Your task to perform on an android device: Open Android settings Image 0: 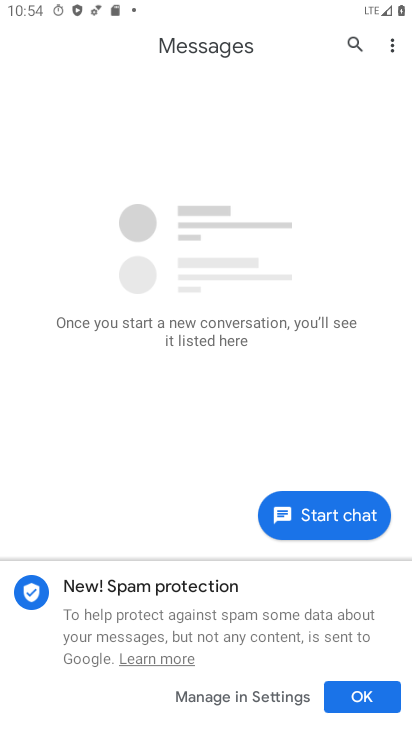
Step 0: press back button
Your task to perform on an android device: Open Android settings Image 1: 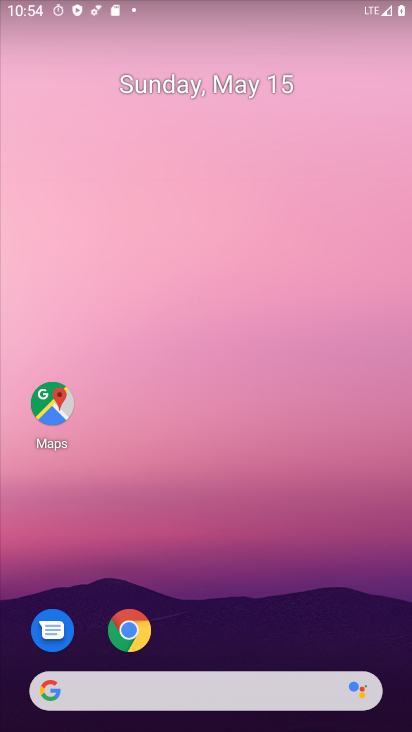
Step 1: drag from (237, 616) to (283, 120)
Your task to perform on an android device: Open Android settings Image 2: 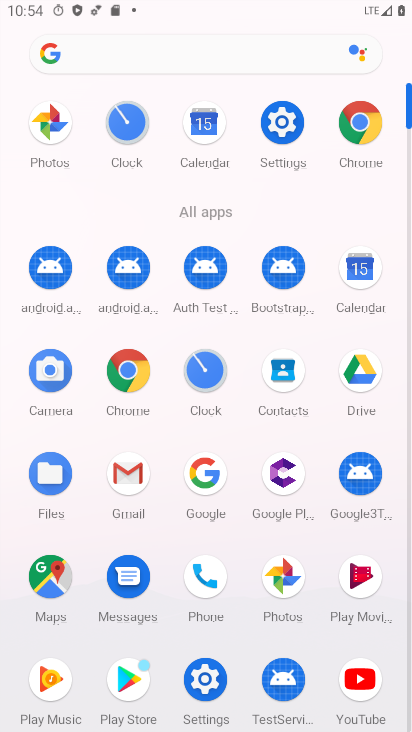
Step 2: click (275, 122)
Your task to perform on an android device: Open Android settings Image 3: 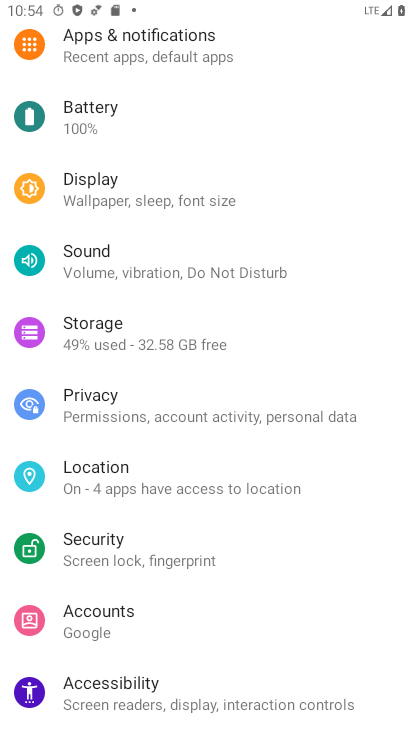
Step 3: drag from (118, 676) to (257, 70)
Your task to perform on an android device: Open Android settings Image 4: 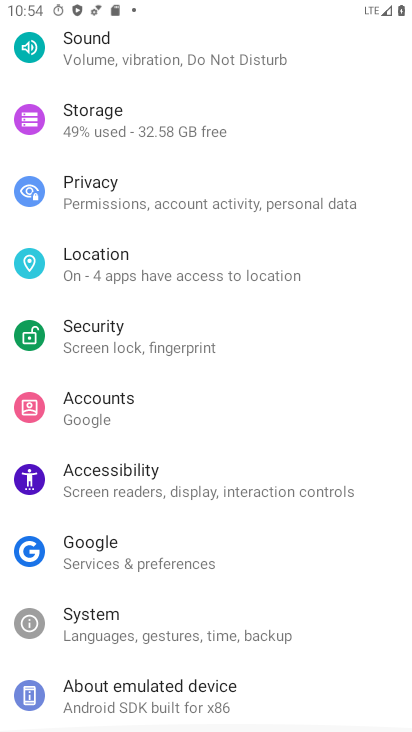
Step 4: click (163, 690)
Your task to perform on an android device: Open Android settings Image 5: 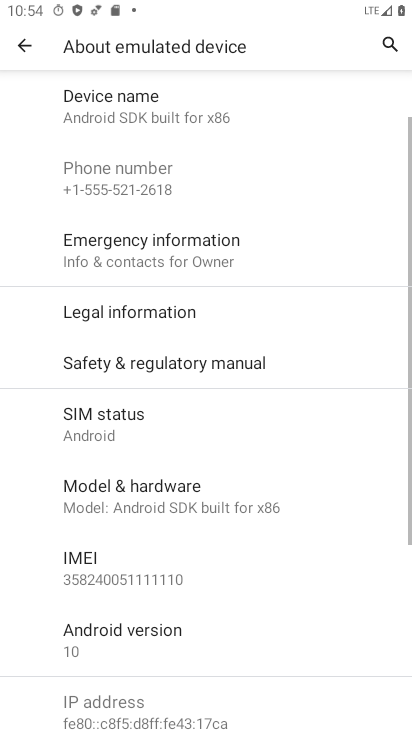
Step 5: click (116, 653)
Your task to perform on an android device: Open Android settings Image 6: 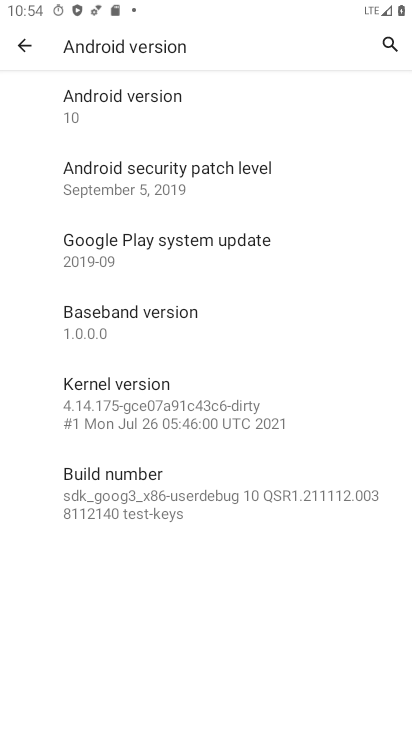
Step 6: task complete